Your task to perform on an android device: Go to Wikipedia Image 0: 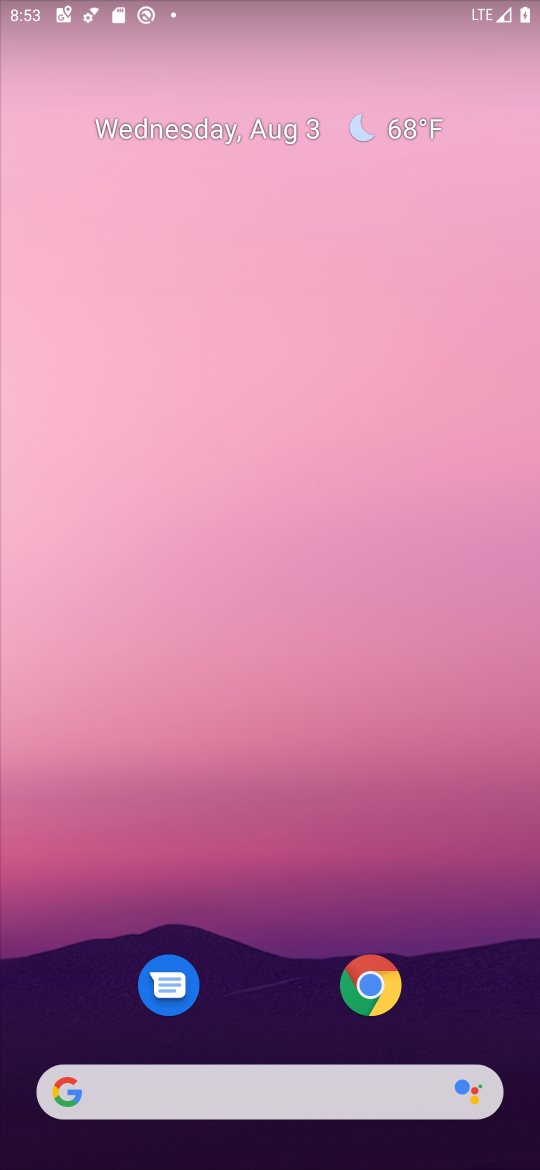
Step 0: drag from (237, 1006) to (237, 945)
Your task to perform on an android device: Go to Wikipedia Image 1: 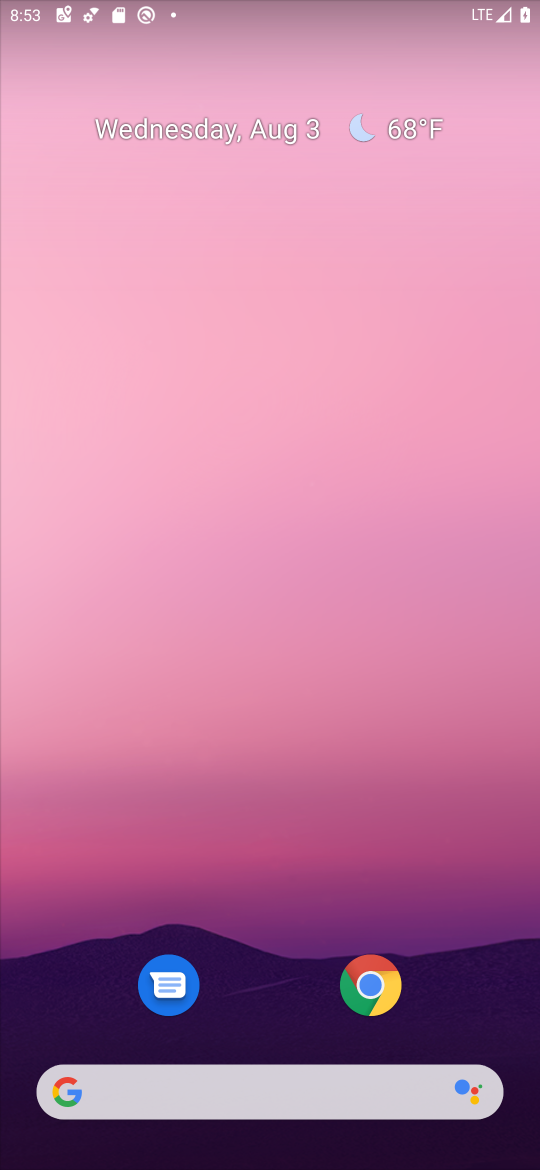
Step 1: click (346, 986)
Your task to perform on an android device: Go to Wikipedia Image 2: 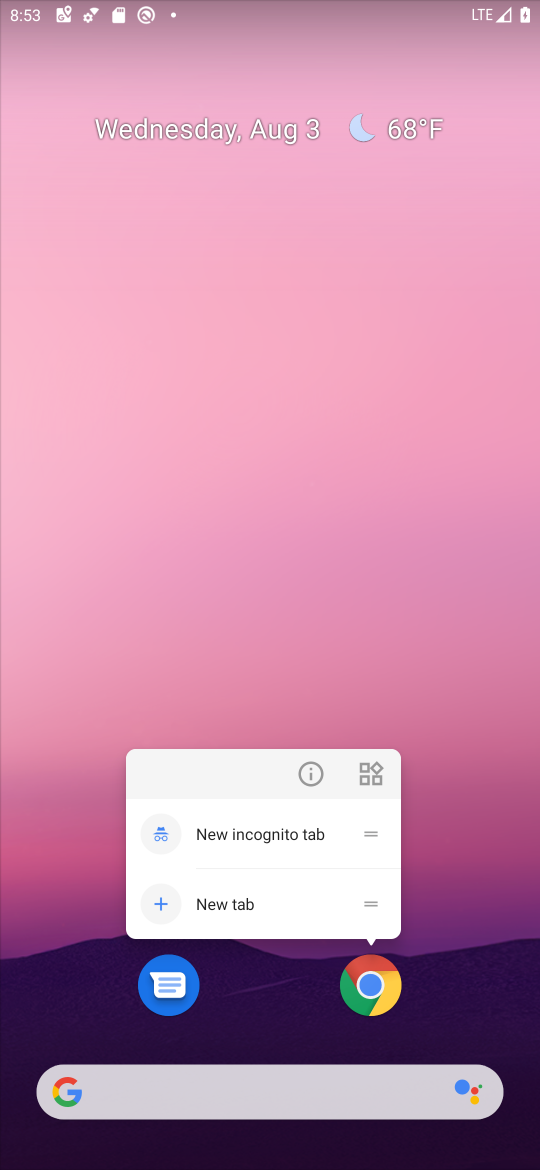
Step 2: click (346, 986)
Your task to perform on an android device: Go to Wikipedia Image 3: 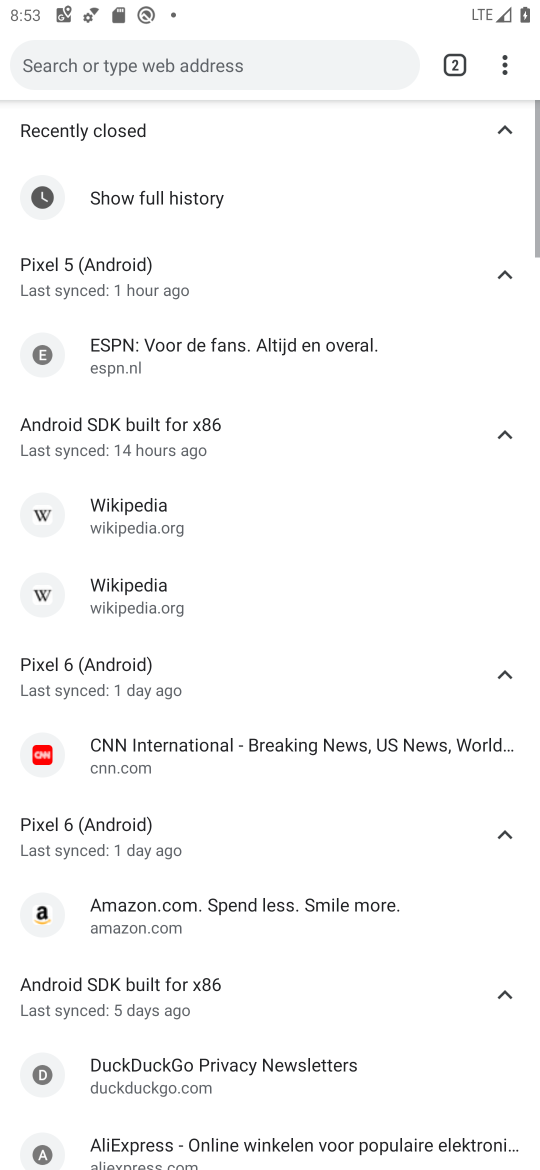
Step 3: click (482, 72)
Your task to perform on an android device: Go to Wikipedia Image 4: 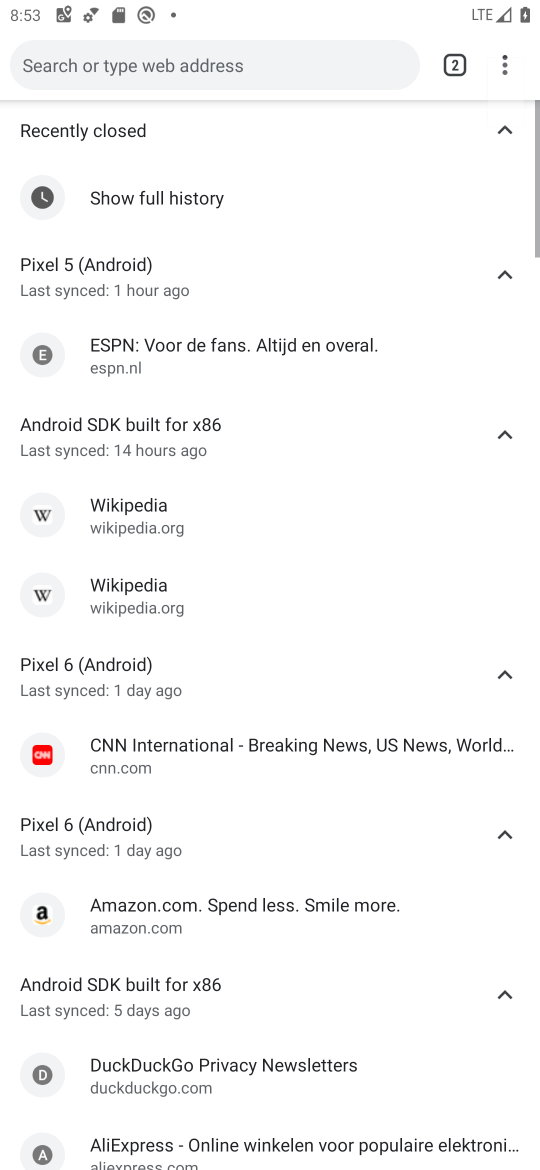
Step 4: click (462, 76)
Your task to perform on an android device: Go to Wikipedia Image 5: 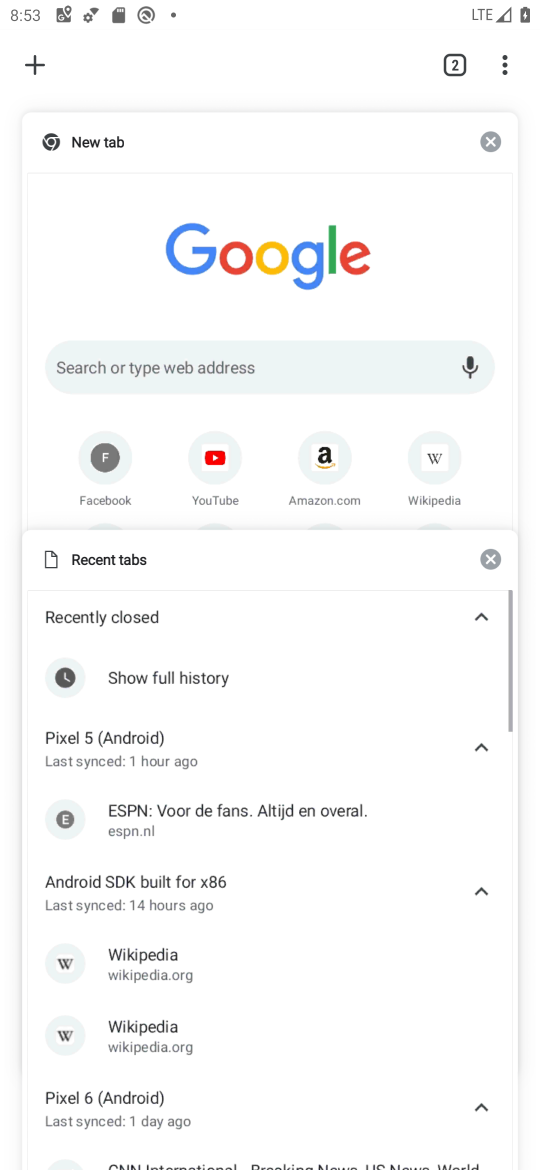
Step 5: click (30, 68)
Your task to perform on an android device: Go to Wikipedia Image 6: 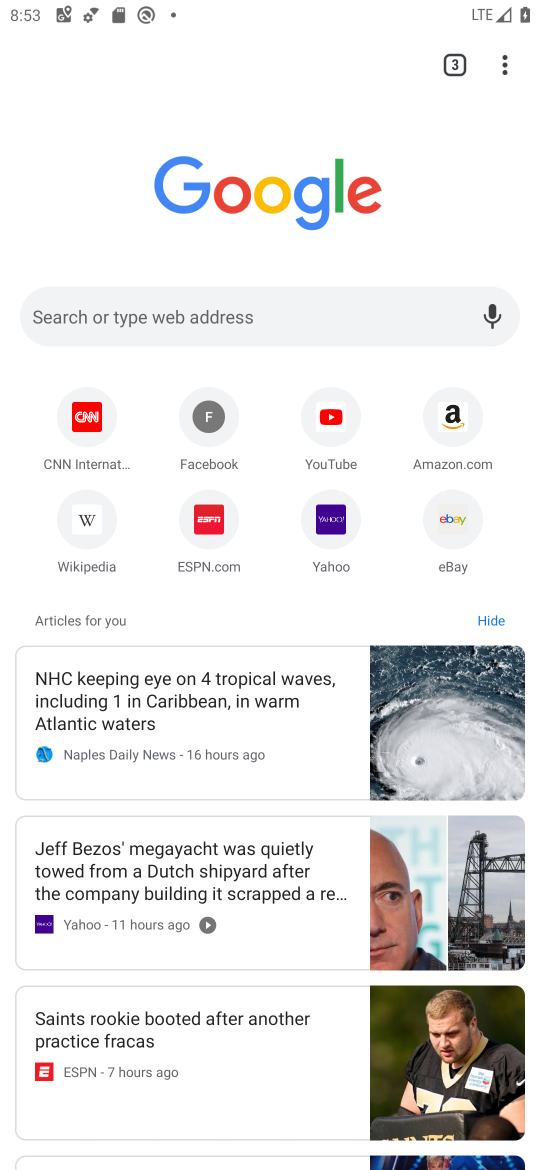
Step 6: click (97, 536)
Your task to perform on an android device: Go to Wikipedia Image 7: 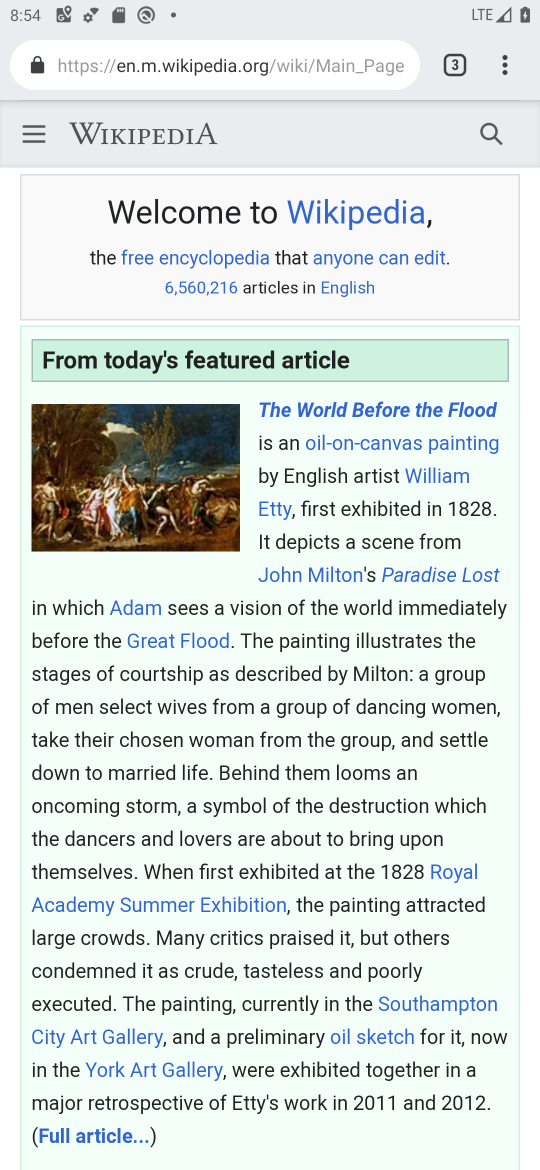
Step 7: task complete